Your task to perform on an android device: turn pop-ups on in chrome Image 0: 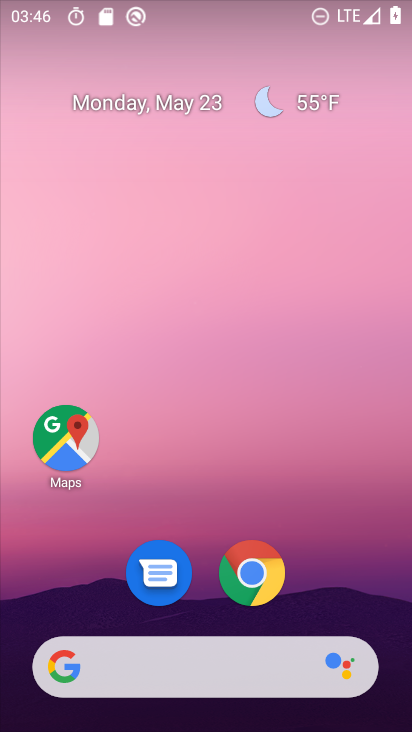
Step 0: click (268, 576)
Your task to perform on an android device: turn pop-ups on in chrome Image 1: 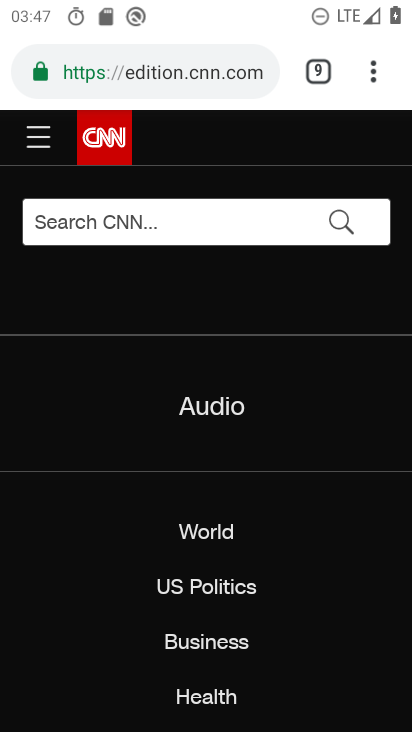
Step 1: click (381, 64)
Your task to perform on an android device: turn pop-ups on in chrome Image 2: 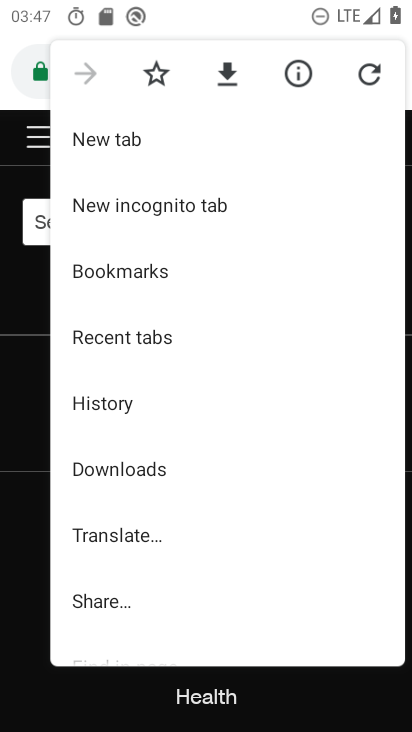
Step 2: drag from (198, 566) to (219, 161)
Your task to perform on an android device: turn pop-ups on in chrome Image 3: 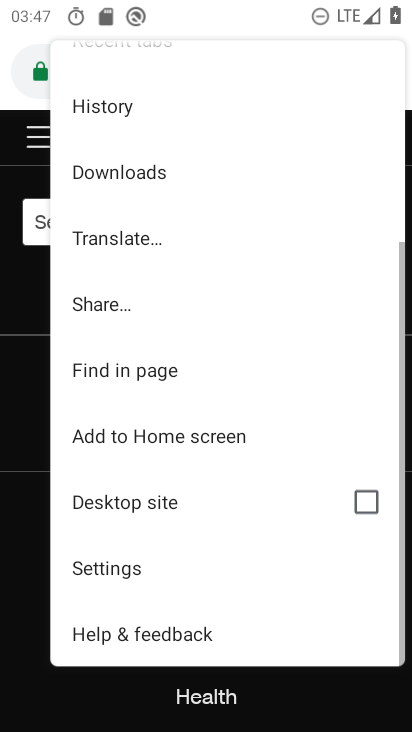
Step 3: click (139, 570)
Your task to perform on an android device: turn pop-ups on in chrome Image 4: 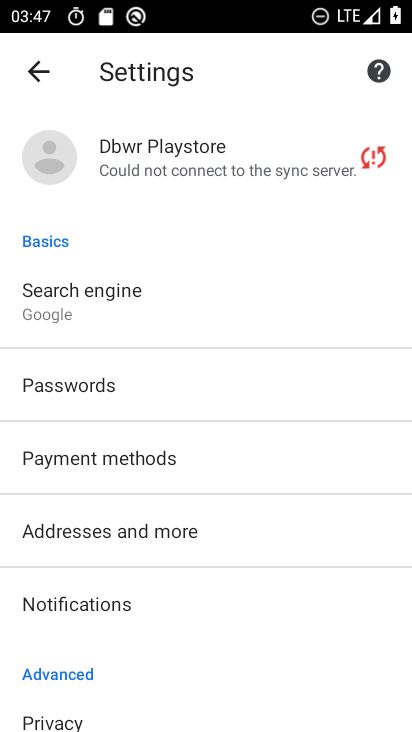
Step 4: drag from (308, 646) to (315, 283)
Your task to perform on an android device: turn pop-ups on in chrome Image 5: 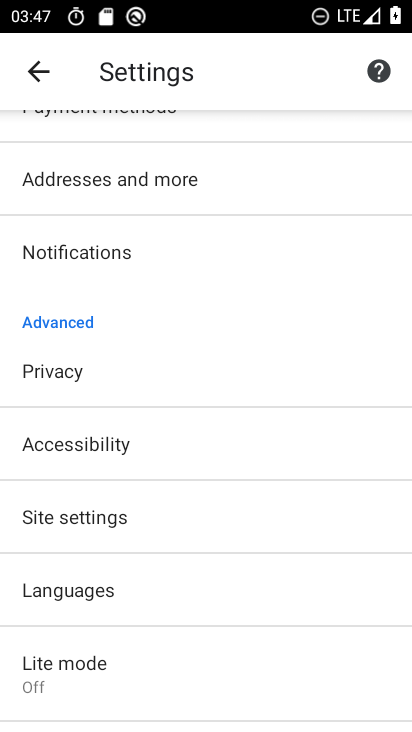
Step 5: click (117, 525)
Your task to perform on an android device: turn pop-ups on in chrome Image 6: 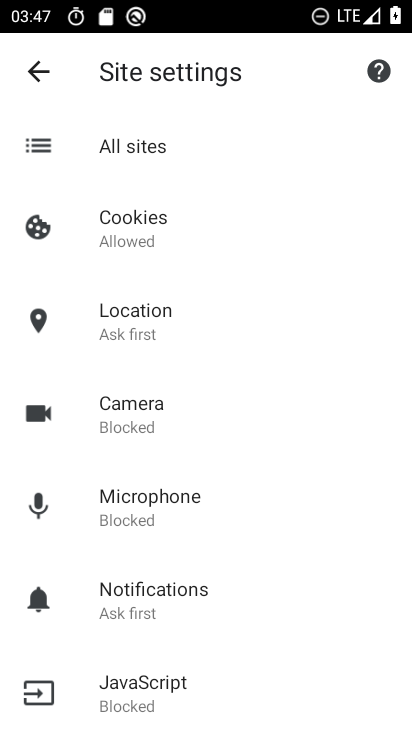
Step 6: drag from (213, 613) to (215, 223)
Your task to perform on an android device: turn pop-ups on in chrome Image 7: 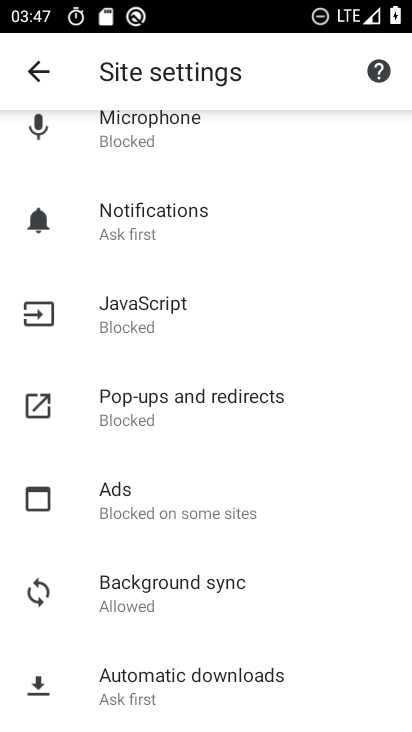
Step 7: click (185, 416)
Your task to perform on an android device: turn pop-ups on in chrome Image 8: 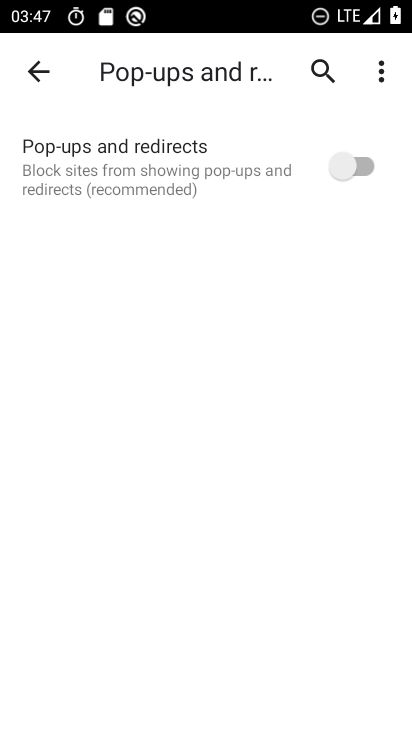
Step 8: click (360, 159)
Your task to perform on an android device: turn pop-ups on in chrome Image 9: 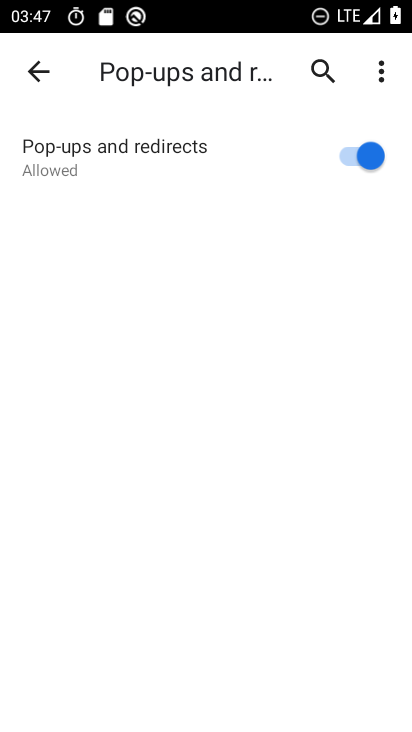
Step 9: task complete